Your task to perform on an android device: Open Google Chrome Image 0: 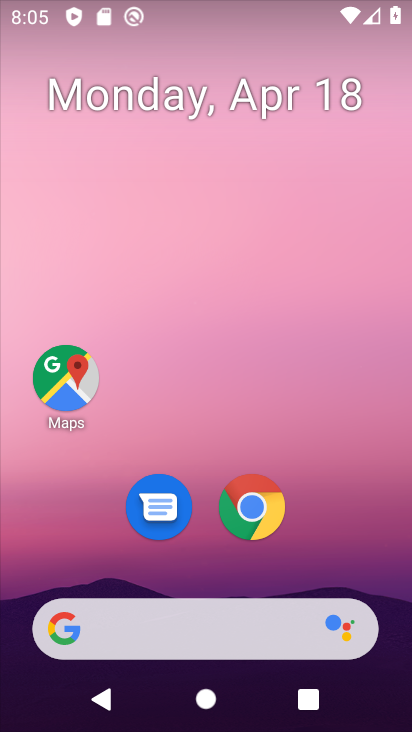
Step 0: click (262, 513)
Your task to perform on an android device: Open Google Chrome Image 1: 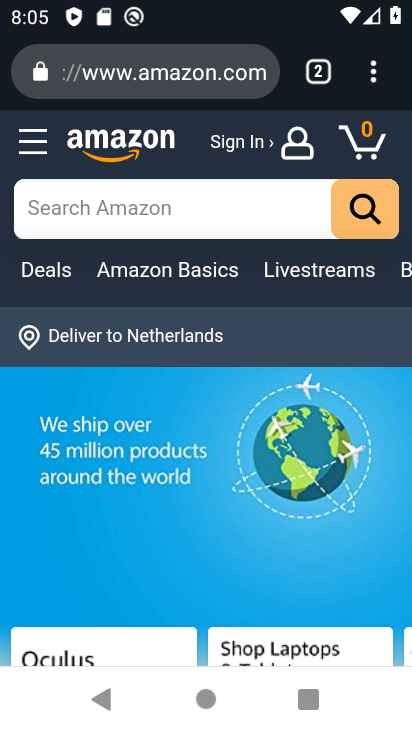
Step 1: task complete